Your task to perform on an android device: Empty the shopping cart on newegg. Search for razer blade on newegg, select the first entry, and add it to the cart. Image 0: 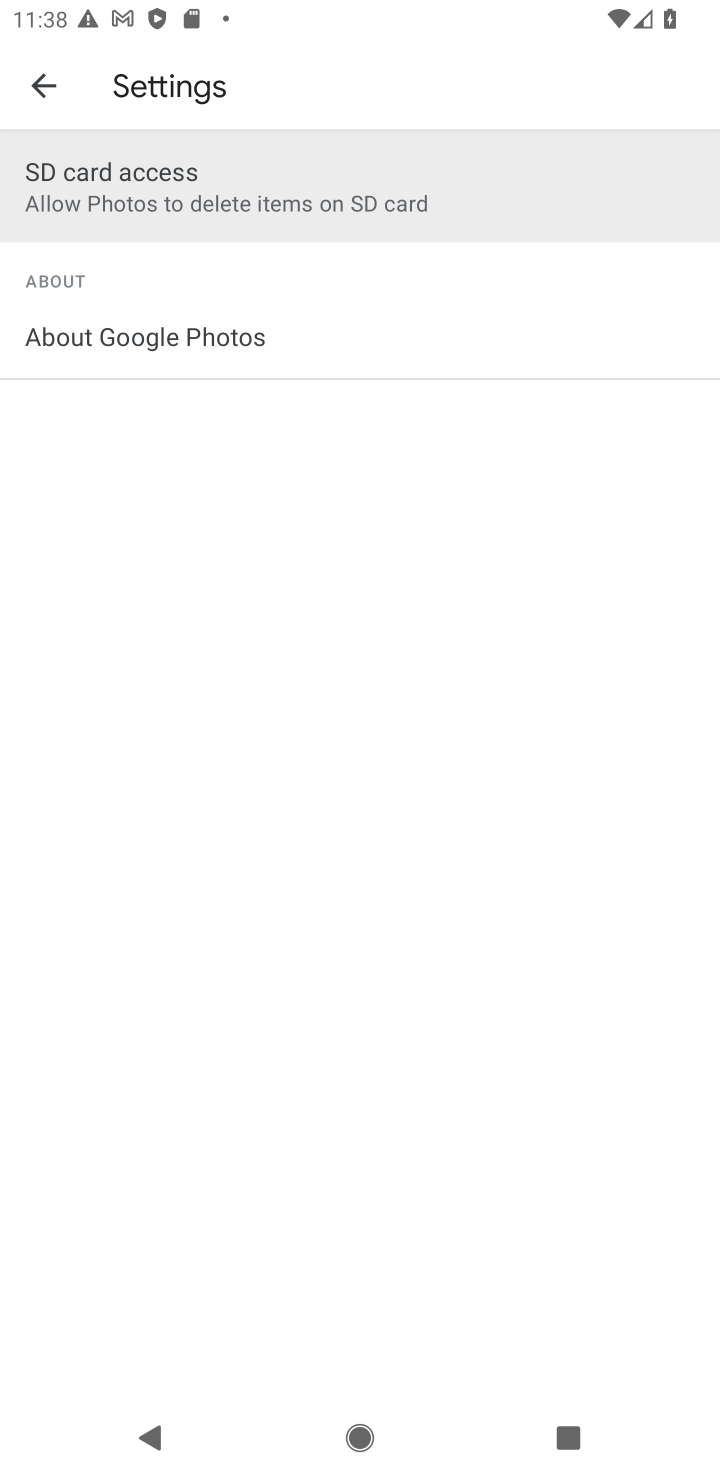
Step 0: press home button
Your task to perform on an android device: Empty the shopping cart on newegg. Search for razer blade on newegg, select the first entry, and add it to the cart. Image 1: 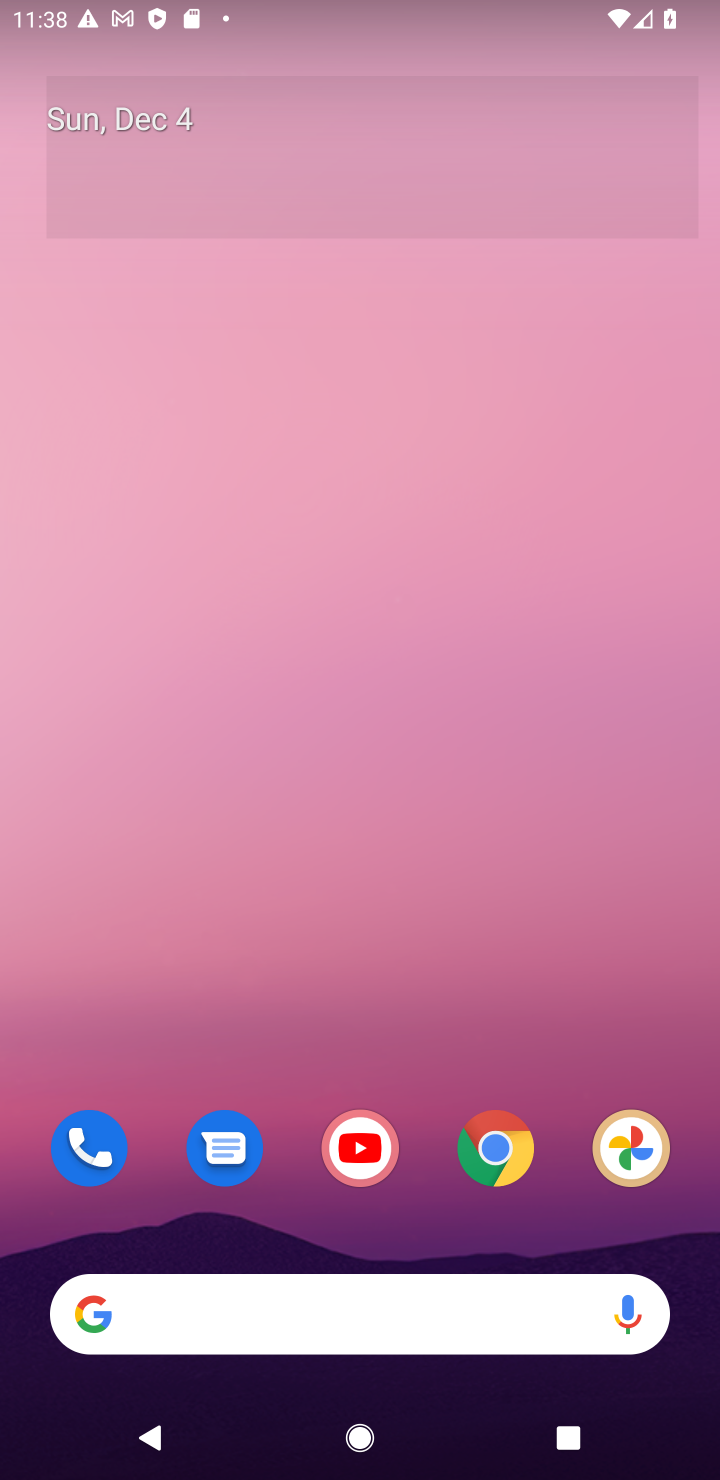
Step 1: drag from (478, 1258) to (387, 442)
Your task to perform on an android device: Empty the shopping cart on newegg. Search for razer blade on newegg, select the first entry, and add it to the cart. Image 2: 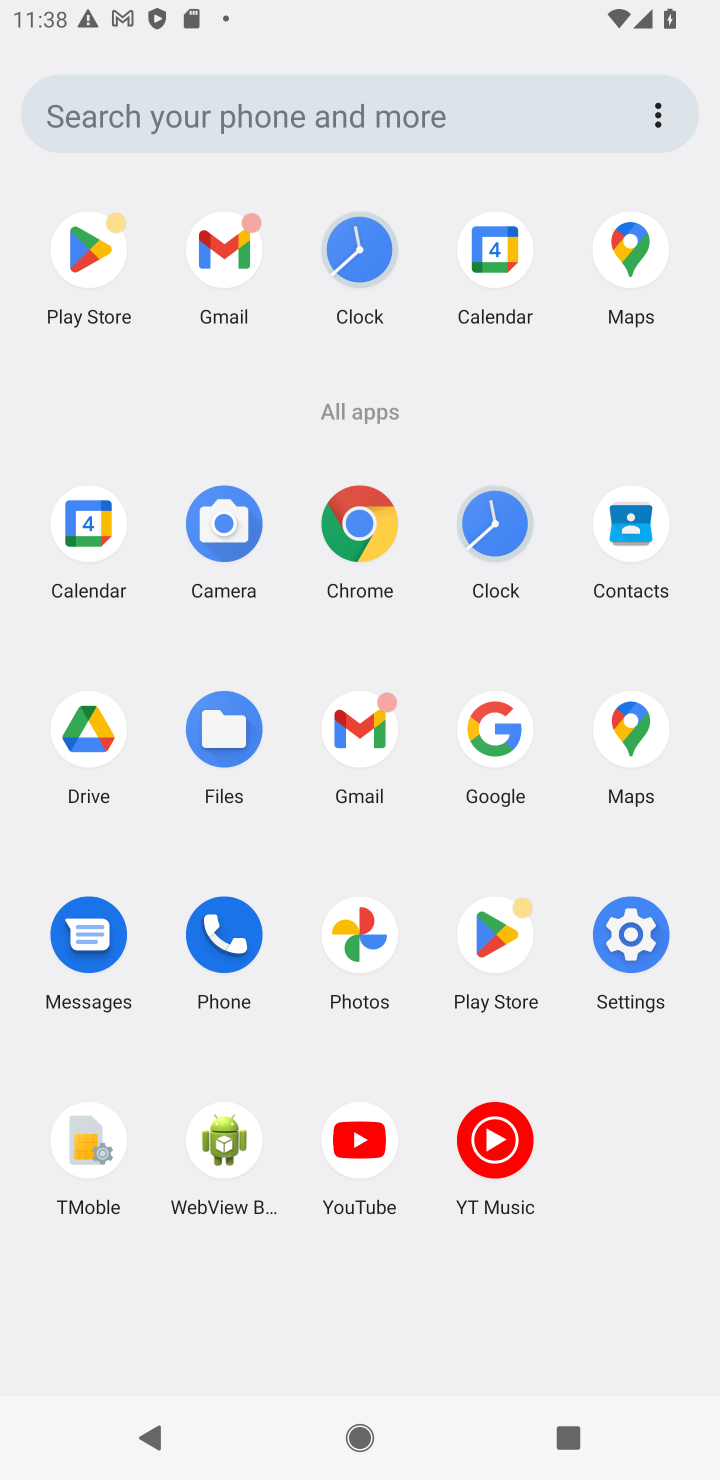
Step 2: click (511, 732)
Your task to perform on an android device: Empty the shopping cart on newegg. Search for razer blade on newegg, select the first entry, and add it to the cart. Image 3: 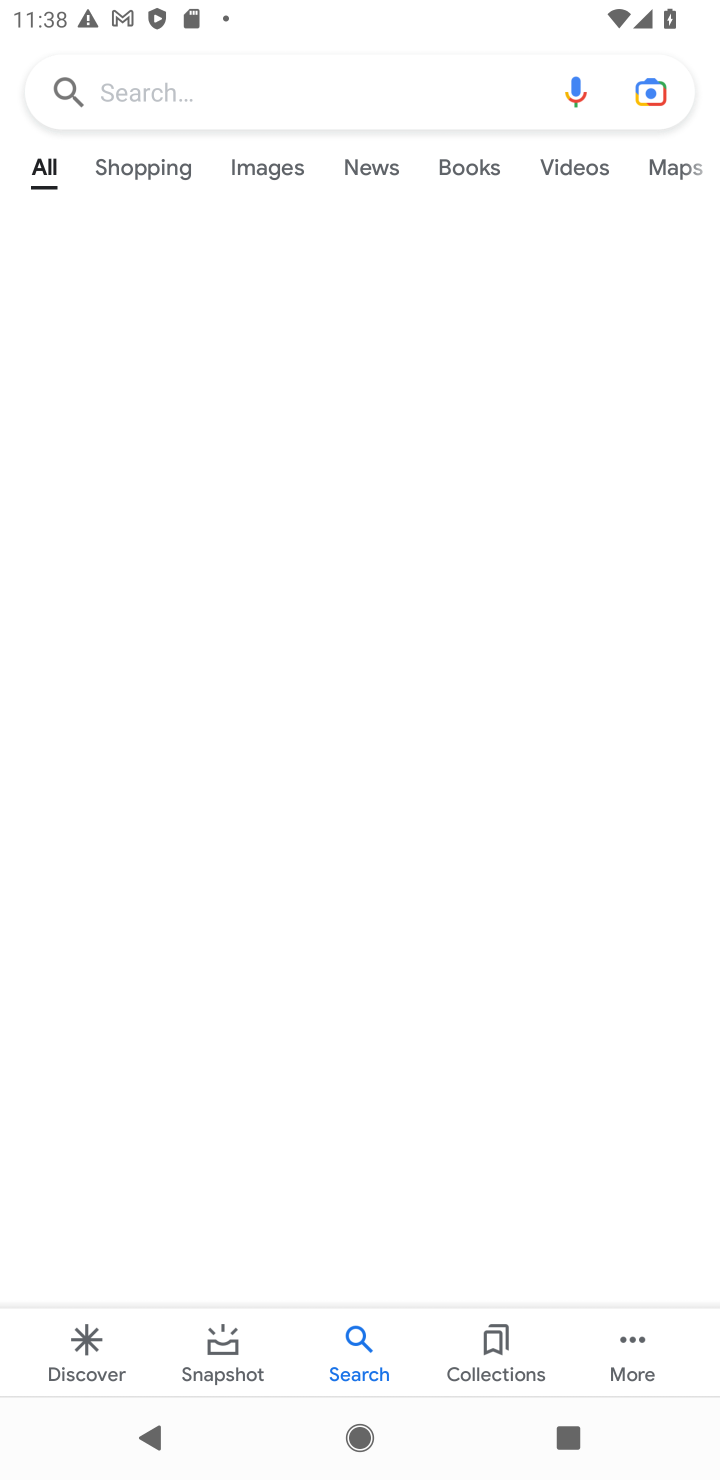
Step 3: click (242, 110)
Your task to perform on an android device: Empty the shopping cart on newegg. Search for razer blade on newegg, select the first entry, and add it to the cart. Image 4: 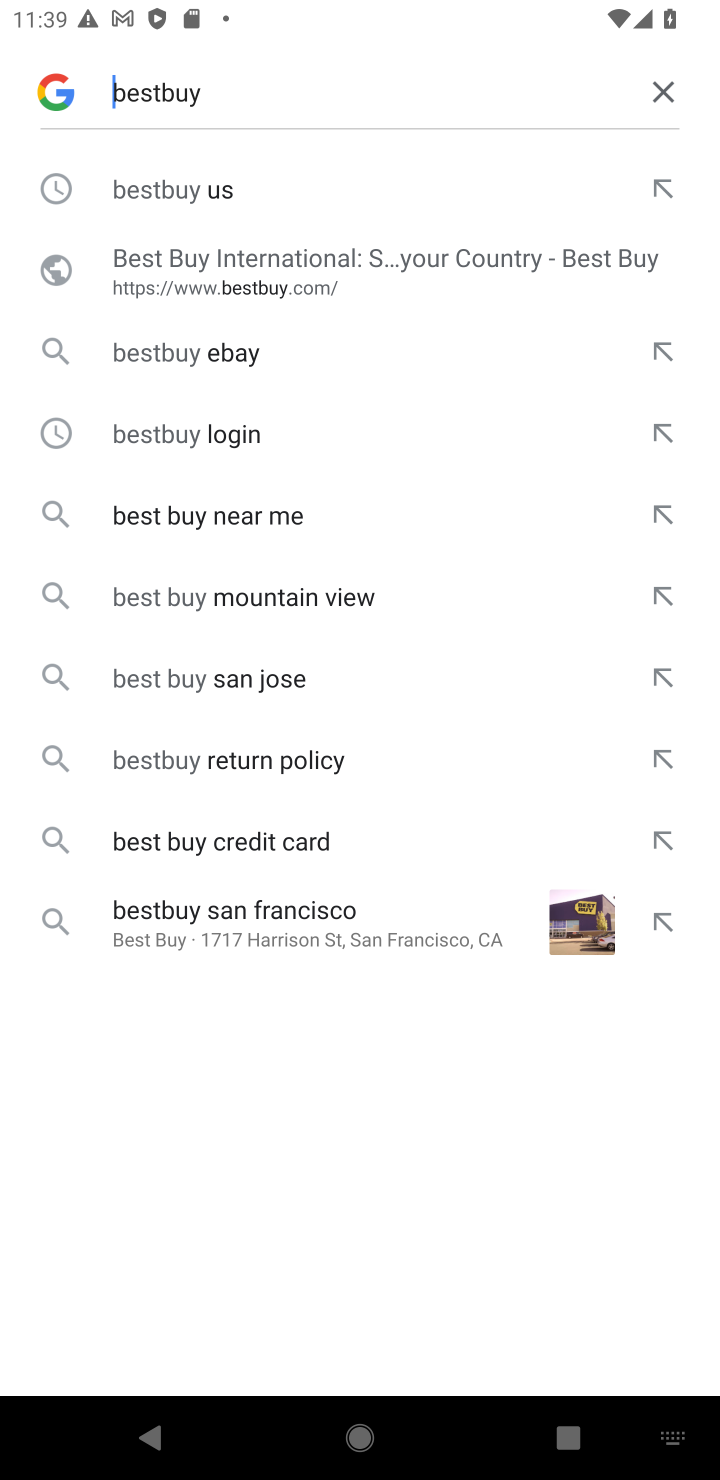
Step 4: click (670, 79)
Your task to perform on an android device: Empty the shopping cart on newegg. Search for razer blade on newegg, select the first entry, and add it to the cart. Image 5: 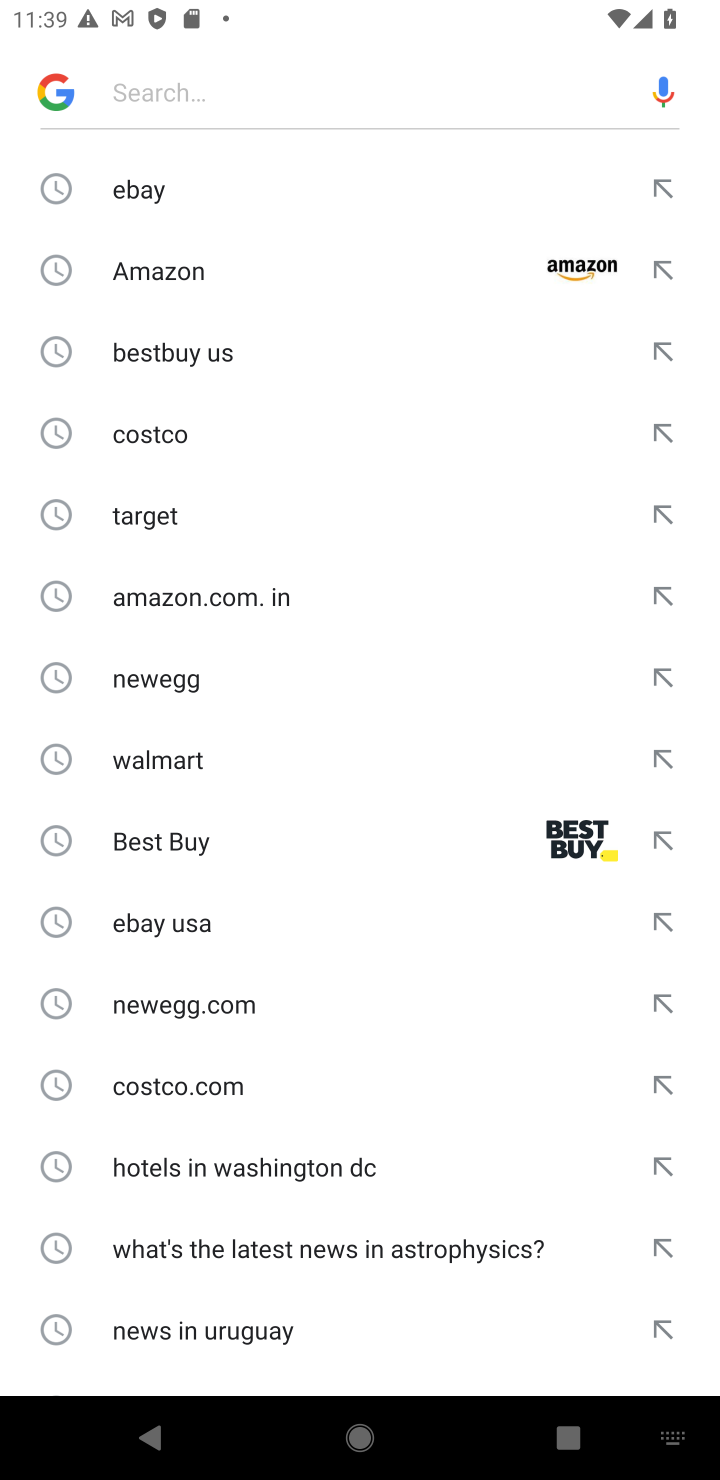
Step 5: click (662, 1017)
Your task to perform on an android device: Empty the shopping cart on newegg. Search for razer blade on newegg, select the first entry, and add it to the cart. Image 6: 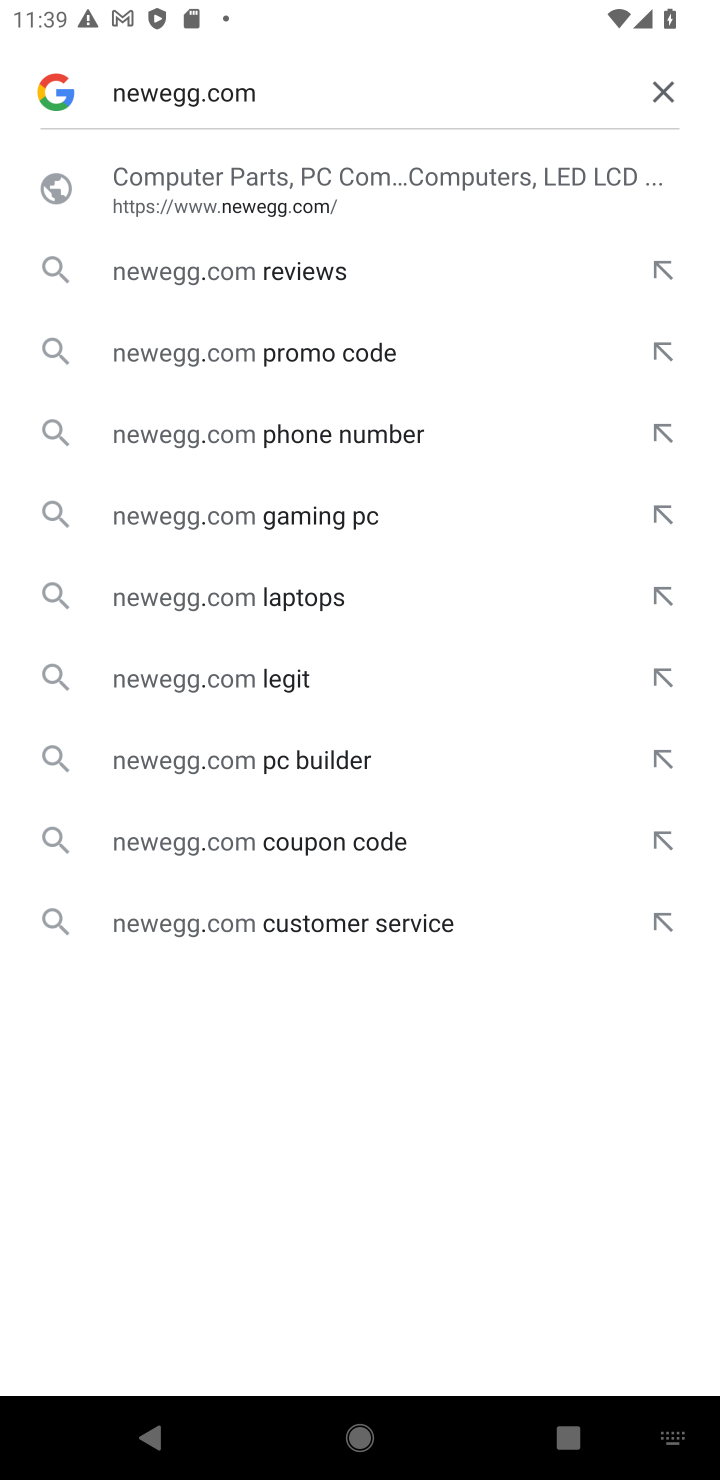
Step 6: click (305, 200)
Your task to perform on an android device: Empty the shopping cart on newegg. Search for razer blade on newegg, select the first entry, and add it to the cart. Image 7: 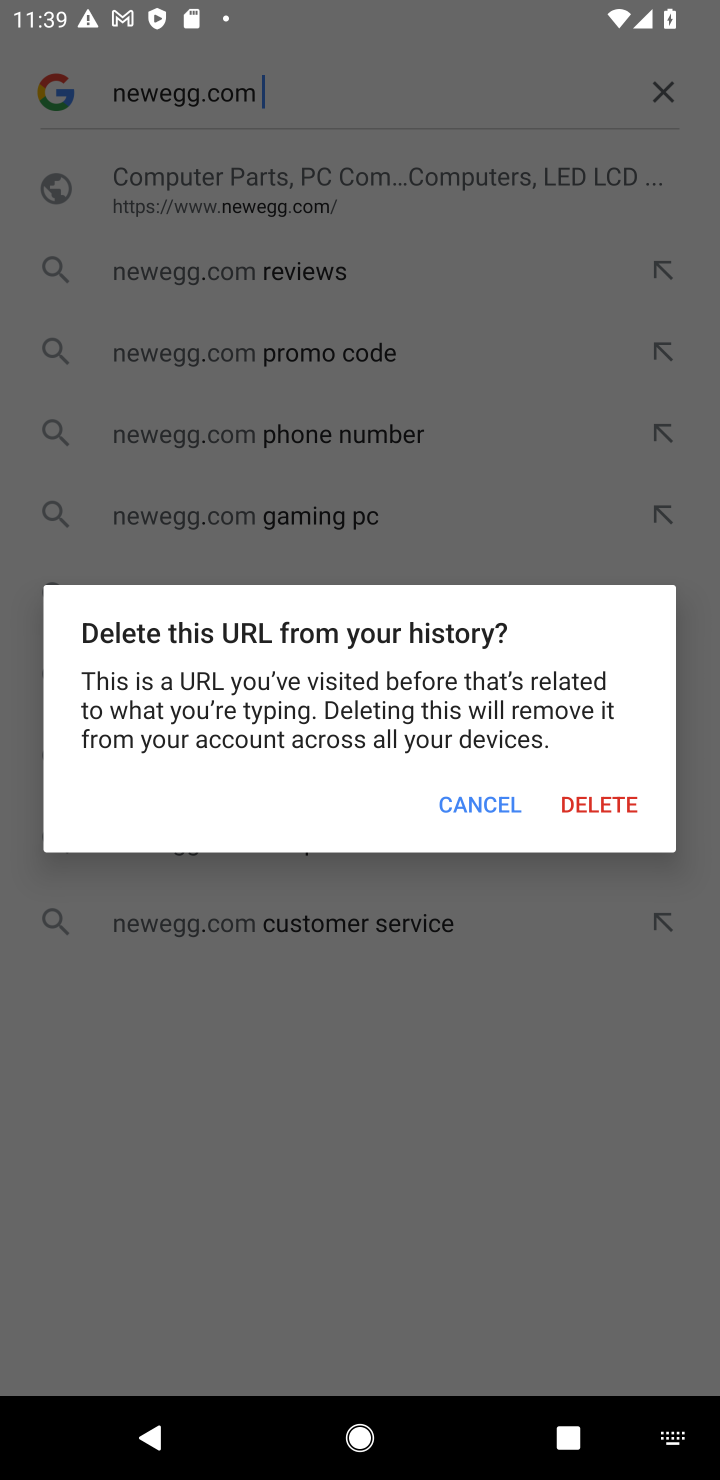
Step 7: click (457, 815)
Your task to perform on an android device: Empty the shopping cart on newegg. Search for razer blade on newegg, select the first entry, and add it to the cart. Image 8: 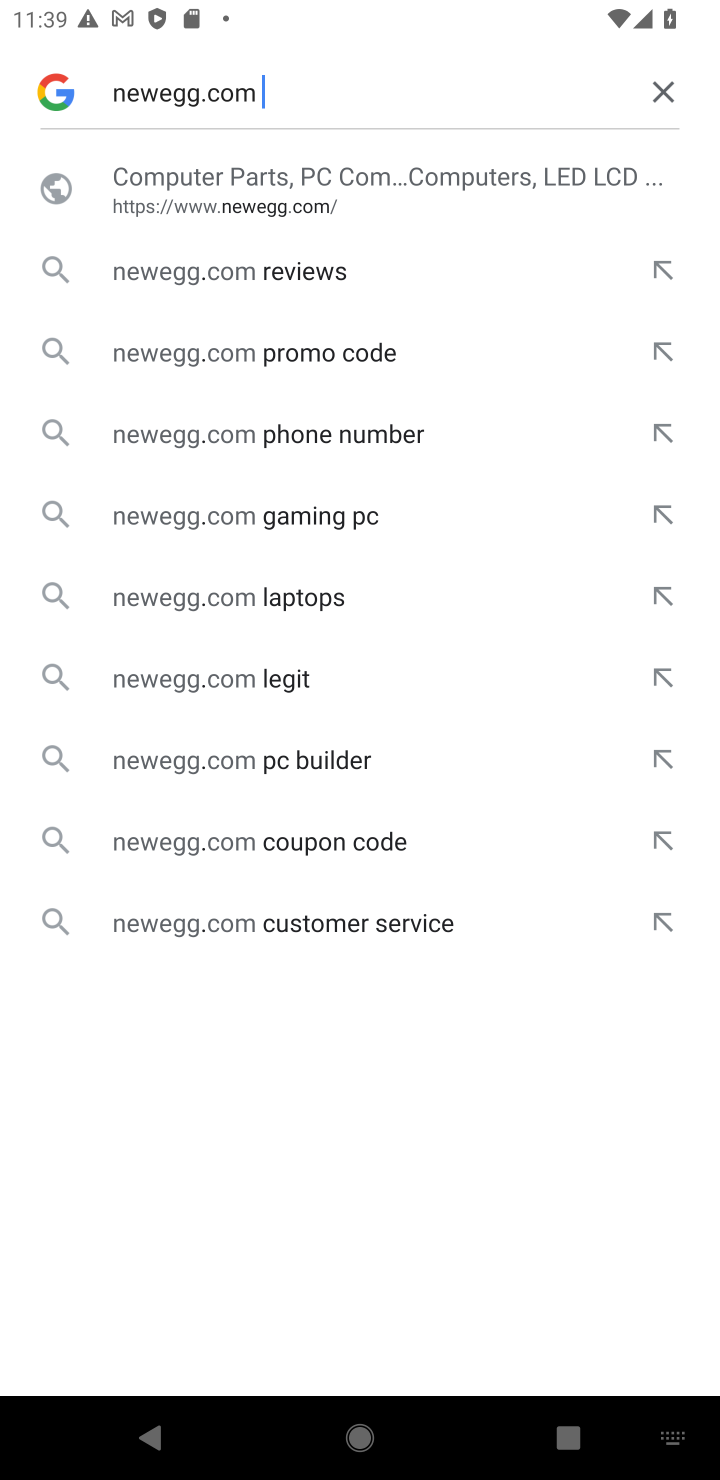
Step 8: click (362, 177)
Your task to perform on an android device: Empty the shopping cart on newegg. Search for razer blade on newegg, select the first entry, and add it to the cart. Image 9: 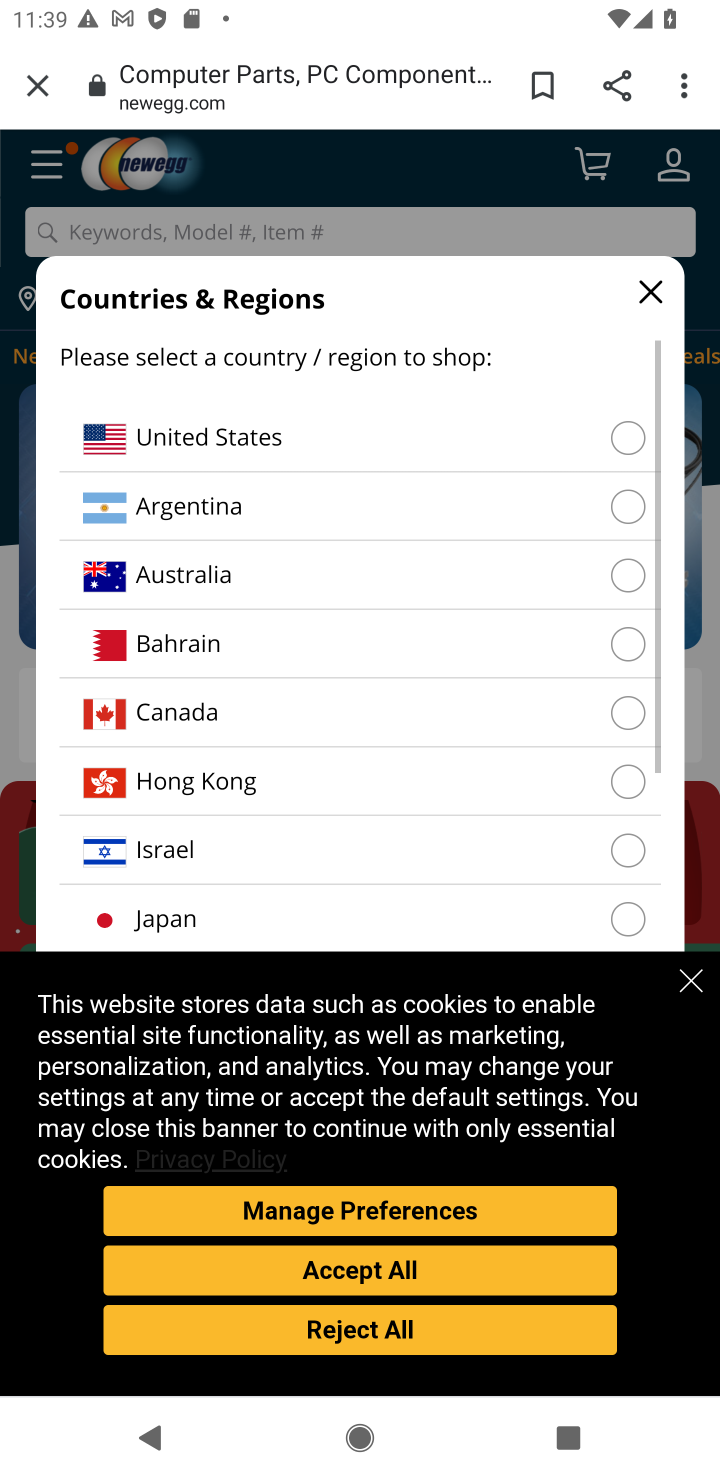
Step 9: click (697, 997)
Your task to perform on an android device: Empty the shopping cart on newegg. Search for razer blade on newegg, select the first entry, and add it to the cart. Image 10: 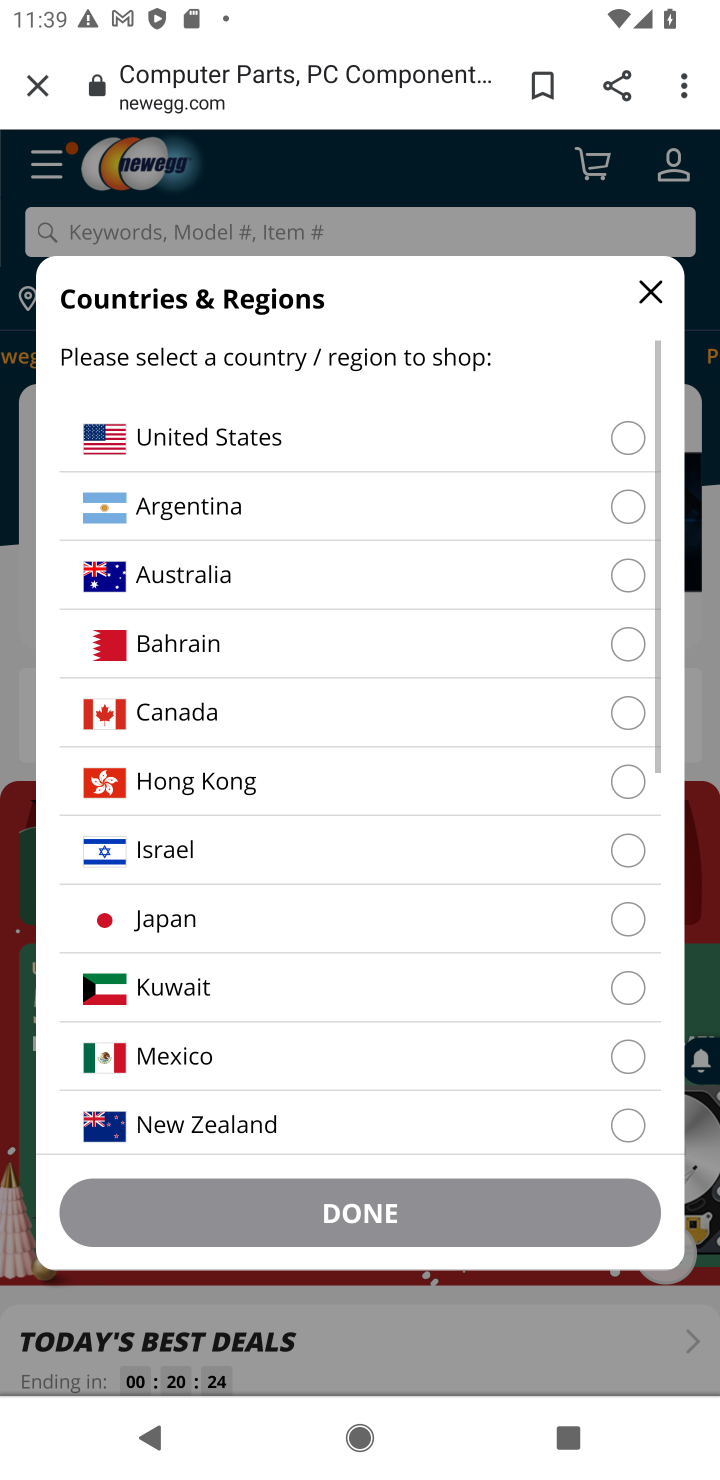
Step 10: click (639, 292)
Your task to perform on an android device: Empty the shopping cart on newegg. Search for razer blade on newegg, select the first entry, and add it to the cart. Image 11: 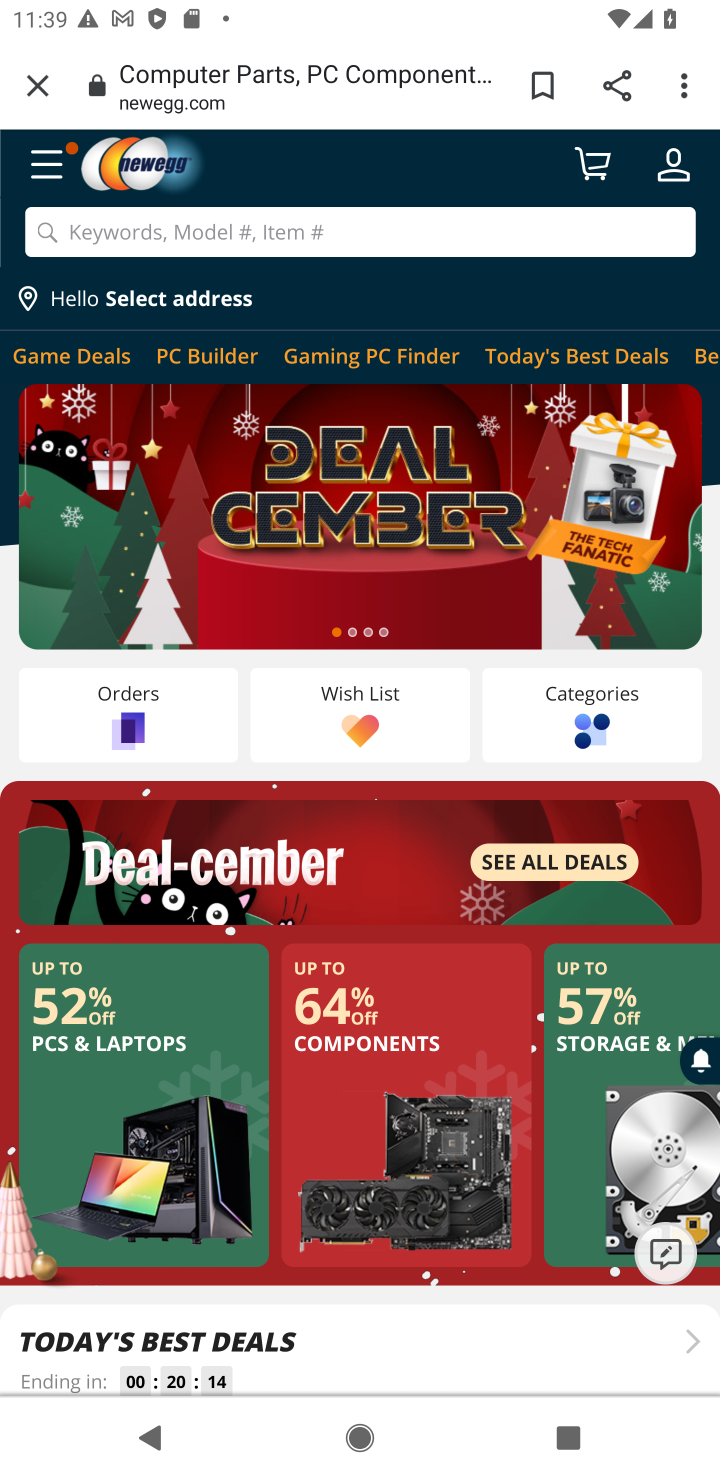
Step 11: click (242, 235)
Your task to perform on an android device: Empty the shopping cart on newegg. Search for razer blade on newegg, select the first entry, and add it to the cart. Image 12: 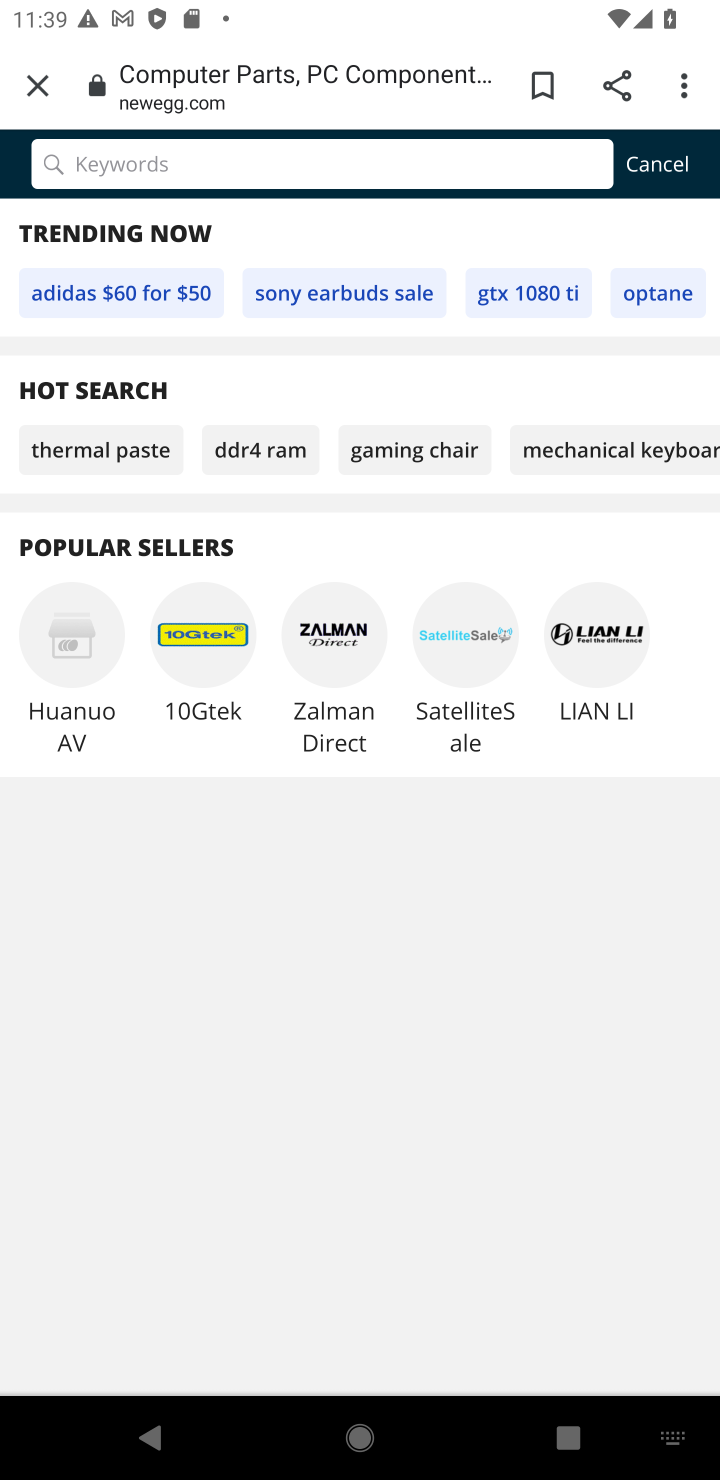
Step 12: type "razer blade"
Your task to perform on an android device: Empty the shopping cart on newegg. Search for razer blade on newegg, select the first entry, and add it to the cart. Image 13: 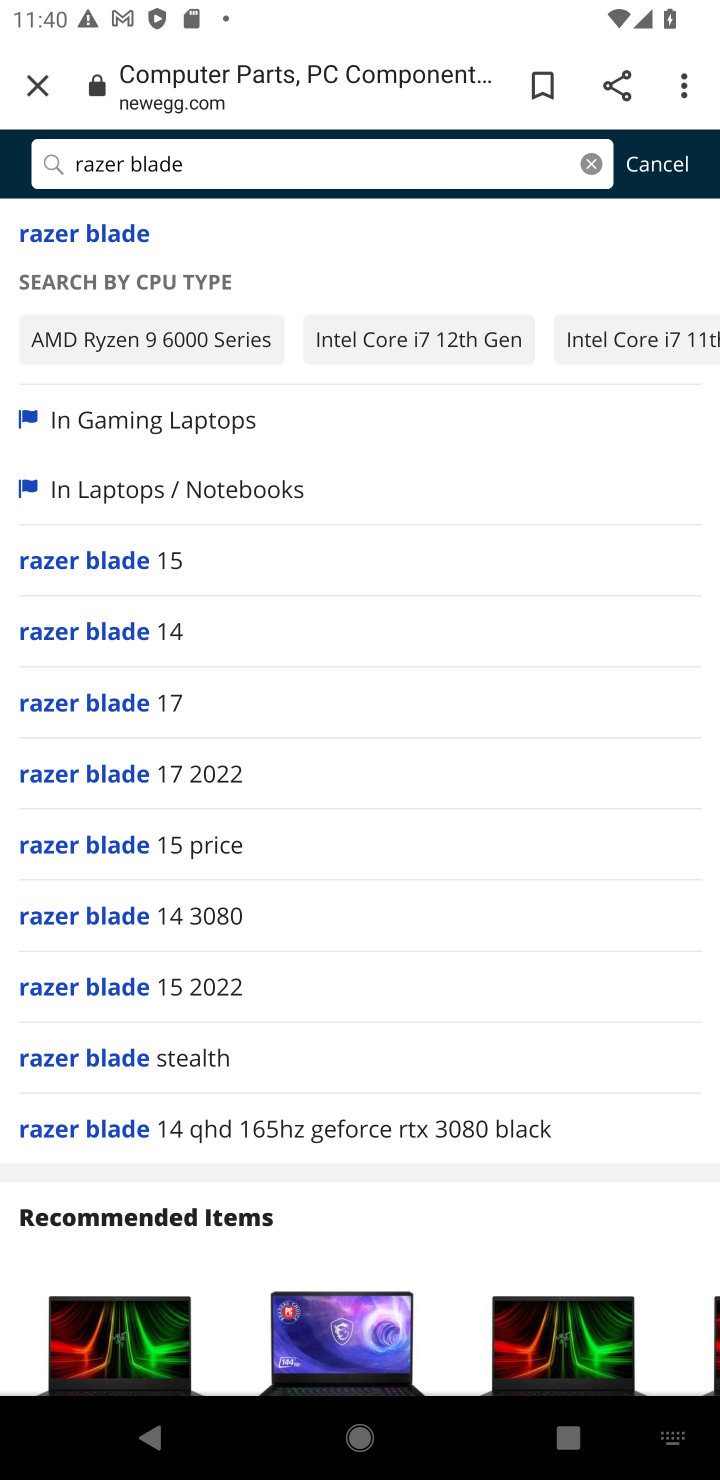
Step 13: click (126, 234)
Your task to perform on an android device: Empty the shopping cart on newegg. Search for razer blade on newegg, select the first entry, and add it to the cart. Image 14: 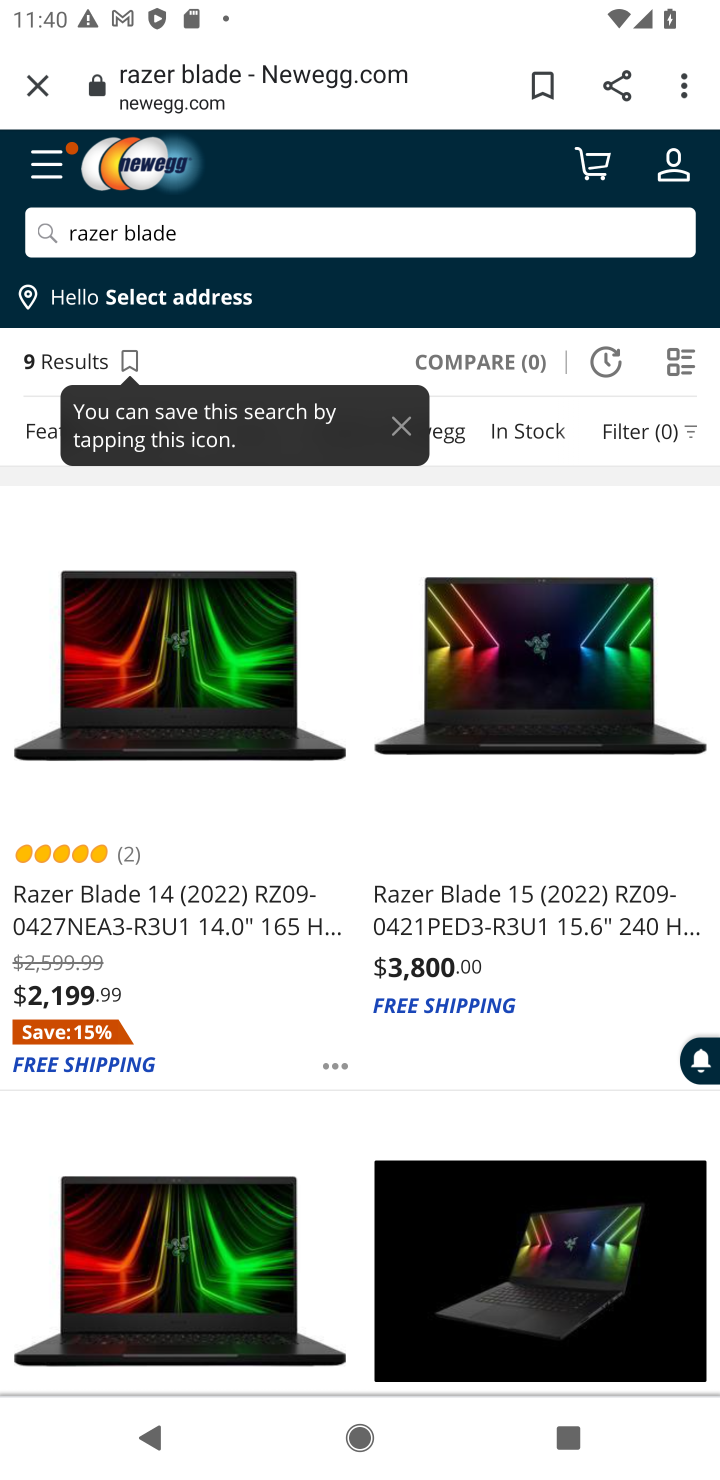
Step 14: click (179, 715)
Your task to perform on an android device: Empty the shopping cart on newegg. Search for razer blade on newegg, select the first entry, and add it to the cart. Image 15: 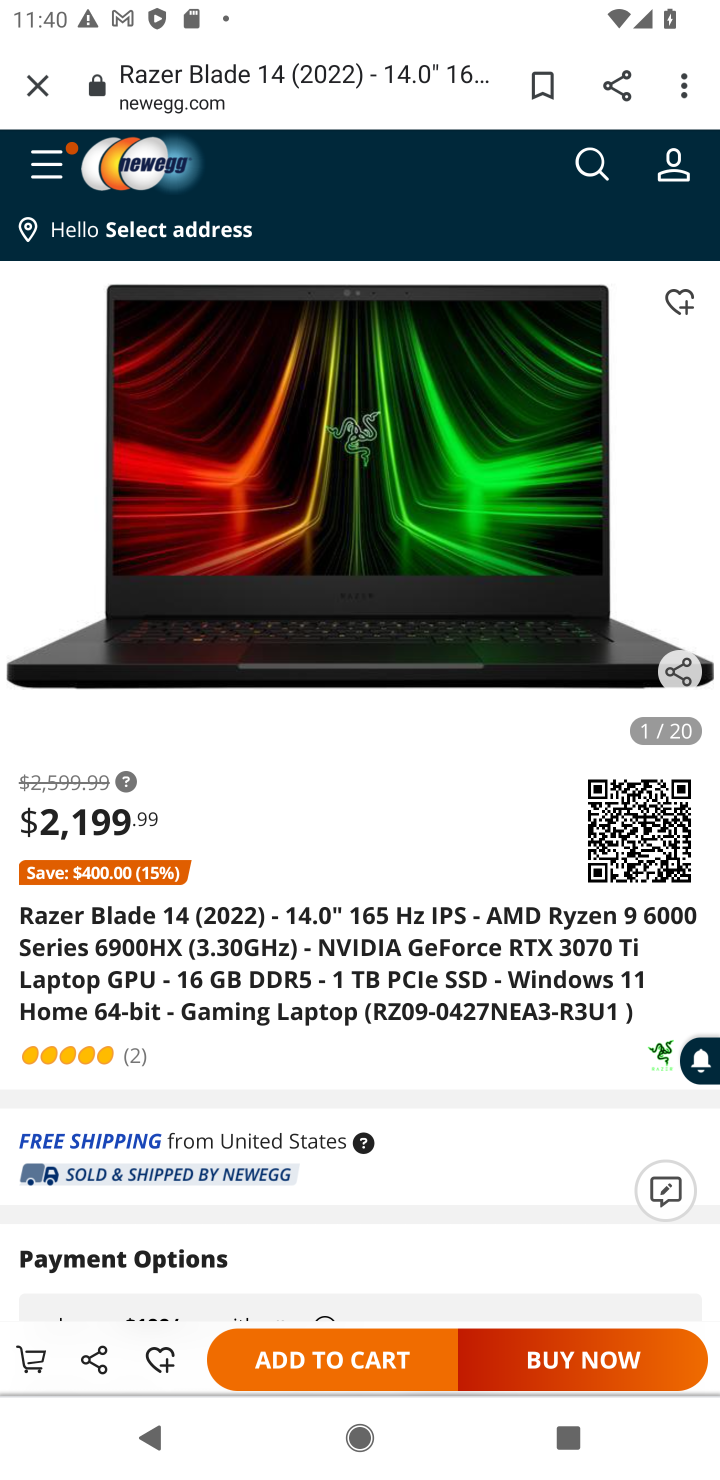
Step 15: click (376, 1361)
Your task to perform on an android device: Empty the shopping cart on newegg. Search for razer blade on newegg, select the first entry, and add it to the cart. Image 16: 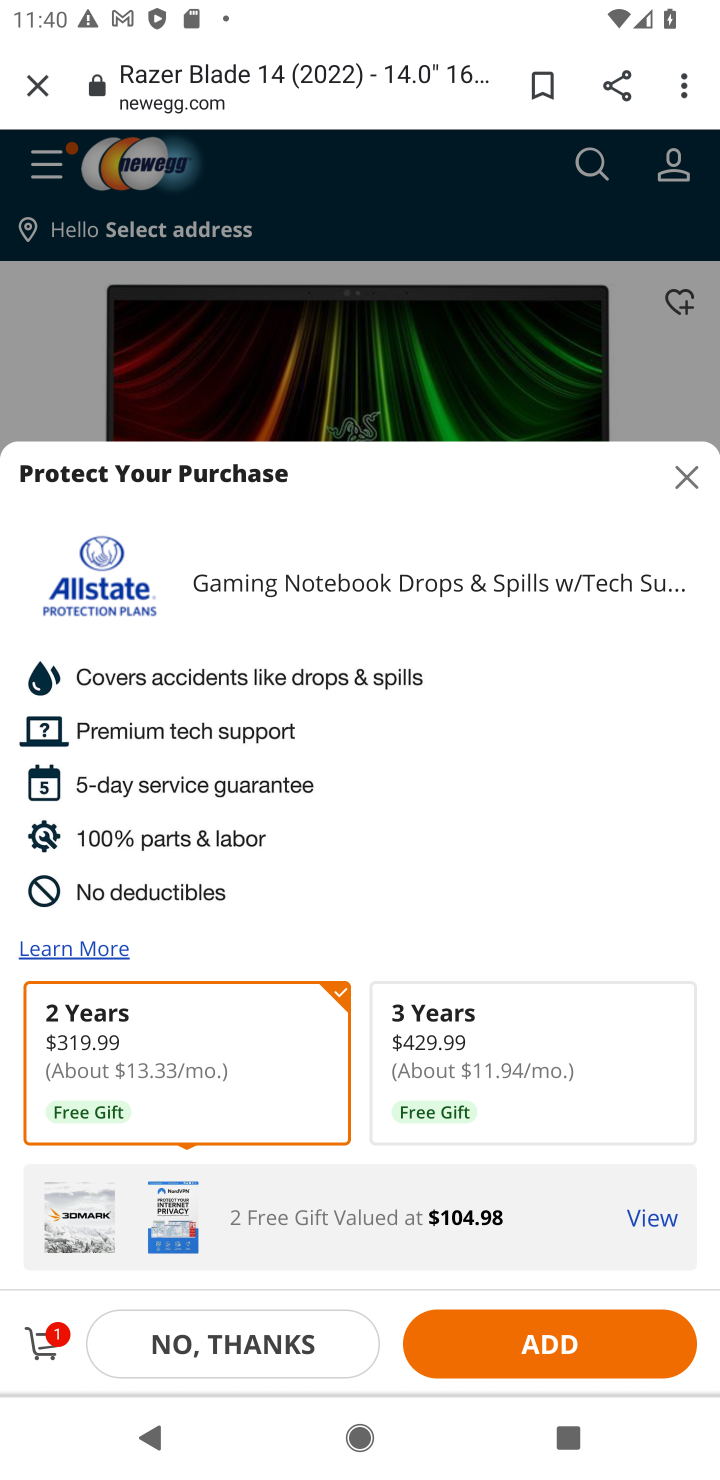
Step 16: click (694, 487)
Your task to perform on an android device: Empty the shopping cart on newegg. Search for razer blade on newegg, select the first entry, and add it to the cart. Image 17: 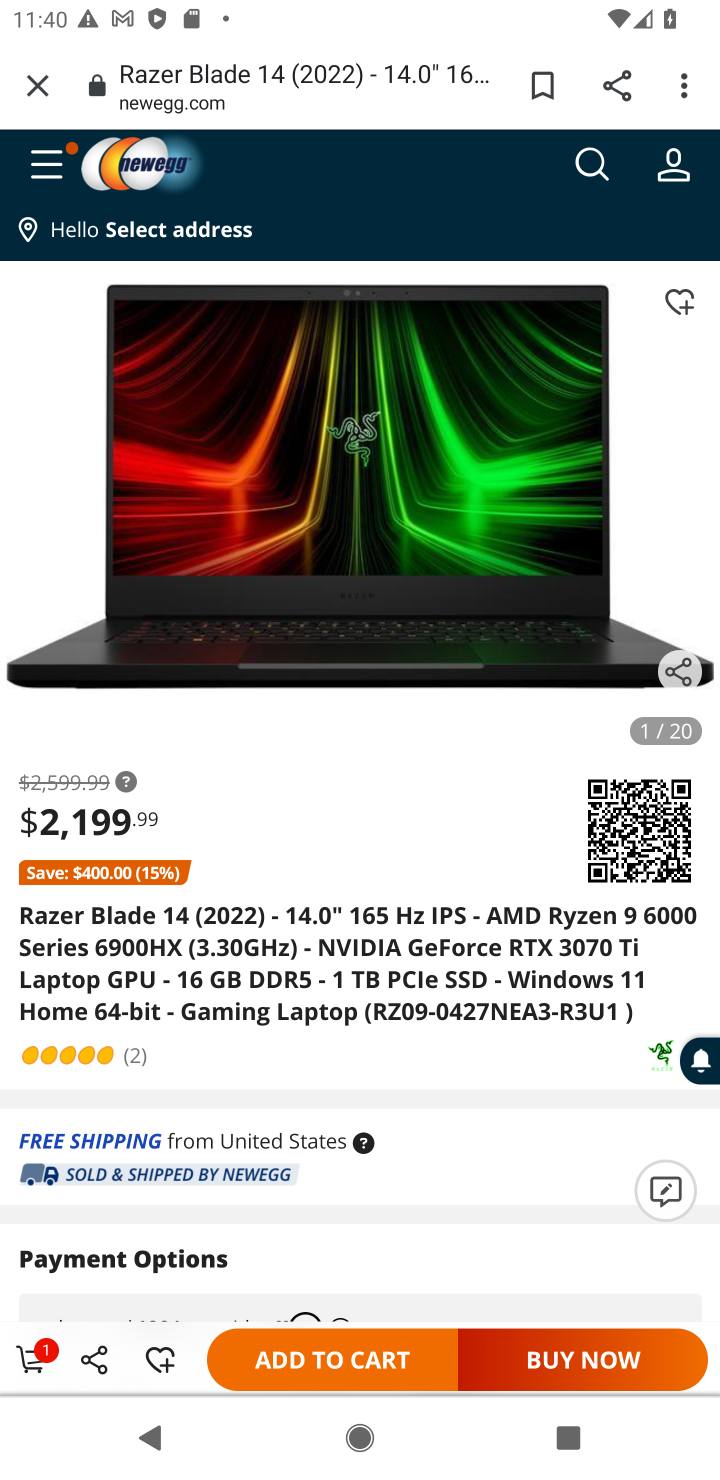
Step 17: click (30, 1372)
Your task to perform on an android device: Empty the shopping cart on newegg. Search for razer blade on newegg, select the first entry, and add it to the cart. Image 18: 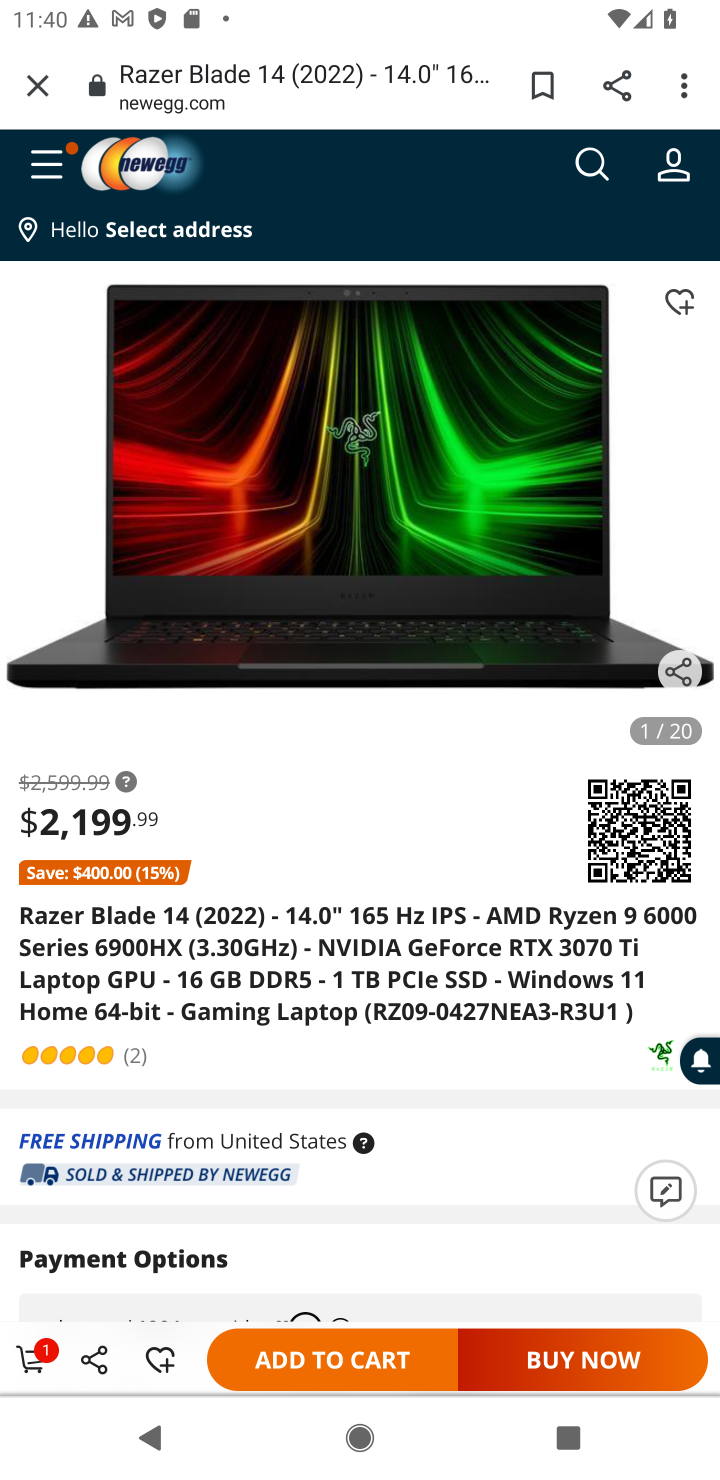
Step 18: click (30, 1365)
Your task to perform on an android device: Empty the shopping cart on newegg. Search for razer blade on newegg, select the first entry, and add it to the cart. Image 19: 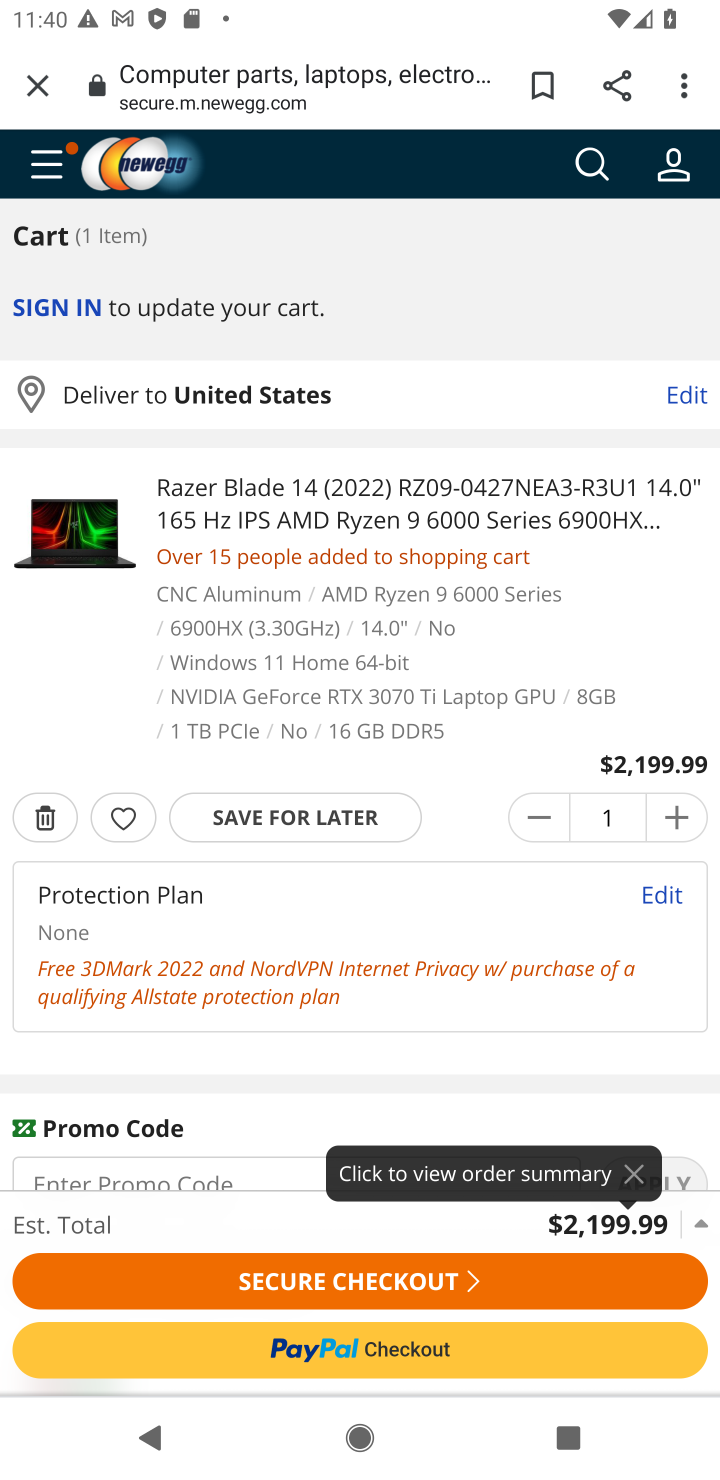
Step 19: click (350, 1281)
Your task to perform on an android device: Empty the shopping cart on newegg. Search for razer blade on newegg, select the first entry, and add it to the cart. Image 20: 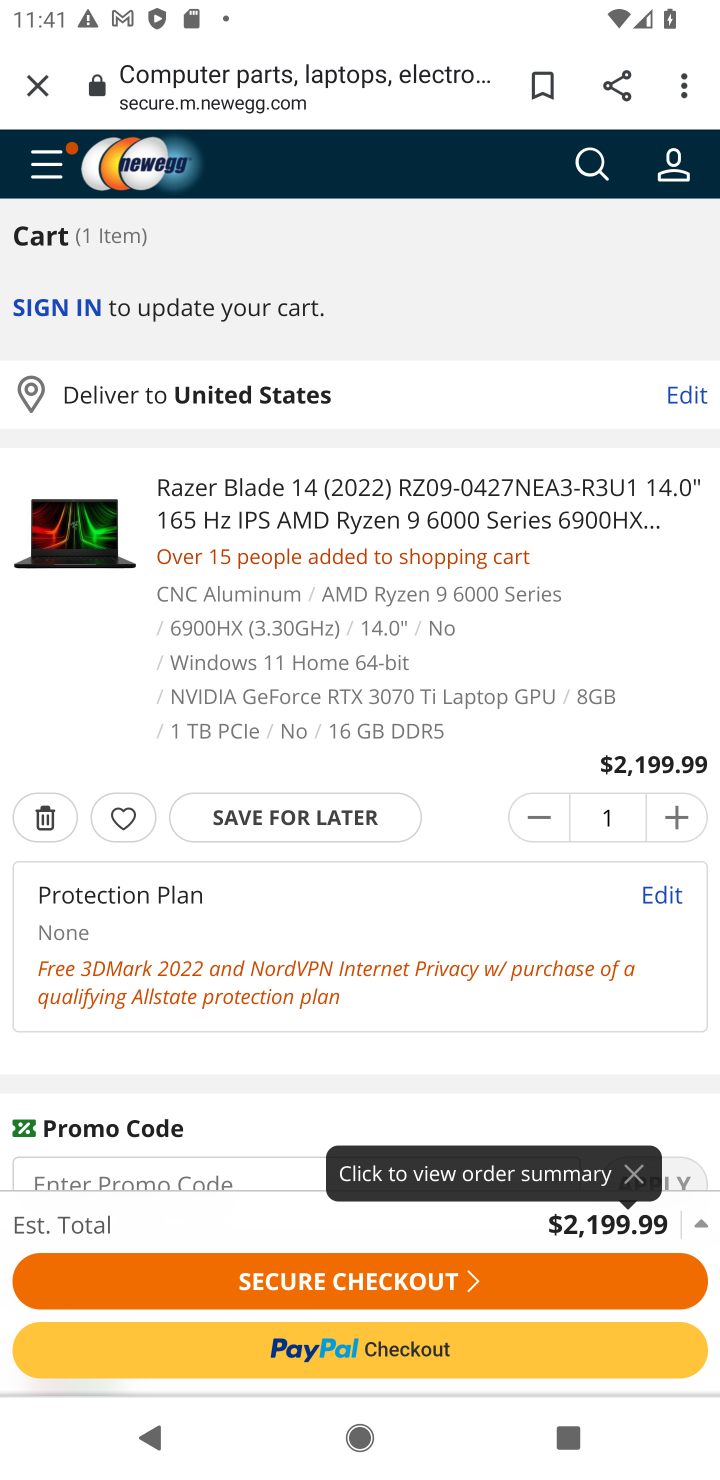
Step 20: task complete